Your task to perform on an android device: change alarm snooze length Image 0: 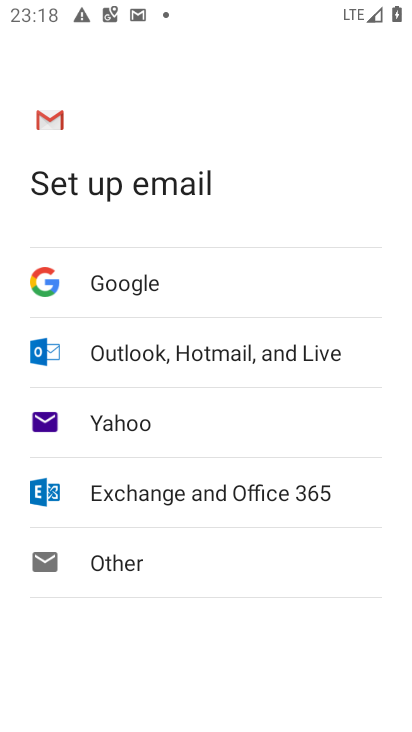
Step 0: press home button
Your task to perform on an android device: change alarm snooze length Image 1: 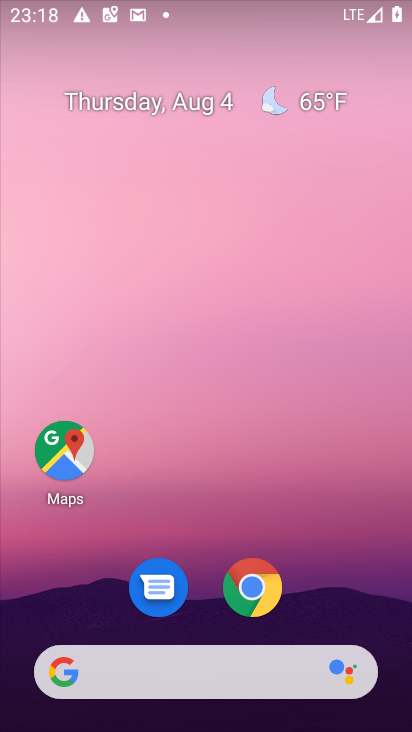
Step 1: drag from (246, 636) to (234, 220)
Your task to perform on an android device: change alarm snooze length Image 2: 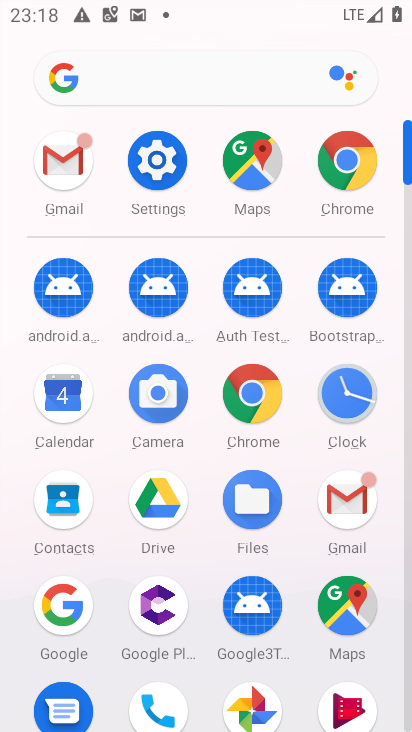
Step 2: click (344, 392)
Your task to perform on an android device: change alarm snooze length Image 3: 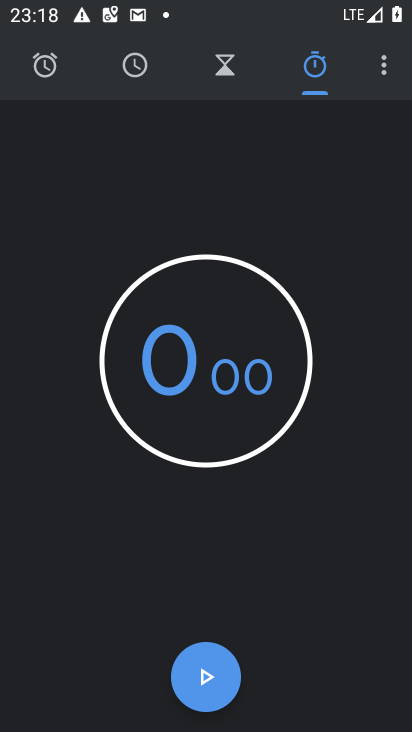
Step 3: click (387, 57)
Your task to perform on an android device: change alarm snooze length Image 4: 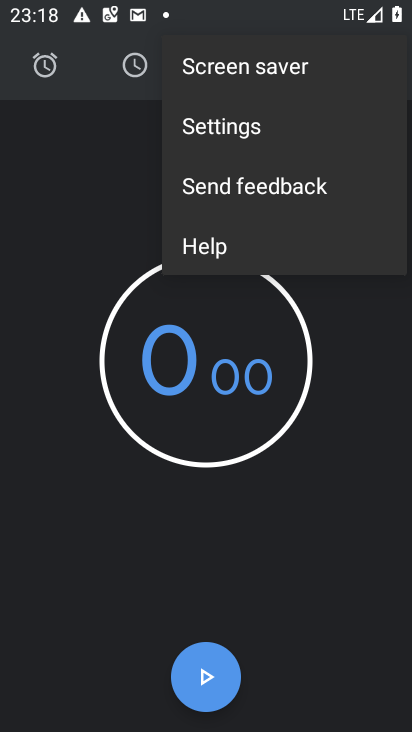
Step 4: click (261, 124)
Your task to perform on an android device: change alarm snooze length Image 5: 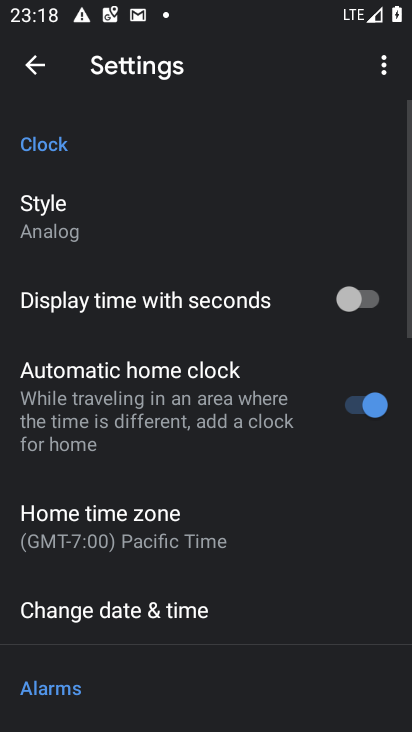
Step 5: drag from (151, 625) to (131, 222)
Your task to perform on an android device: change alarm snooze length Image 6: 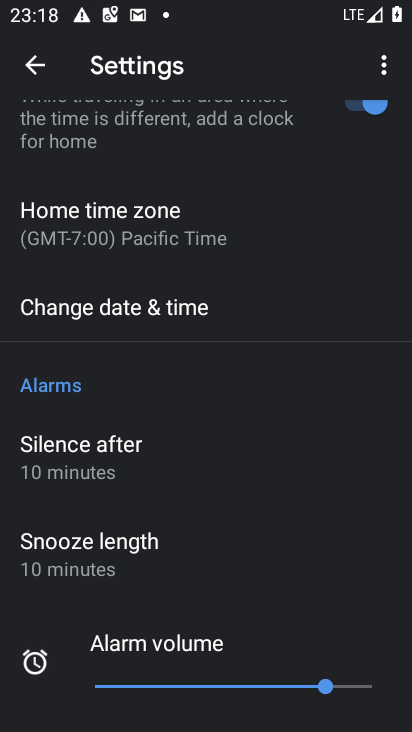
Step 6: click (124, 561)
Your task to perform on an android device: change alarm snooze length Image 7: 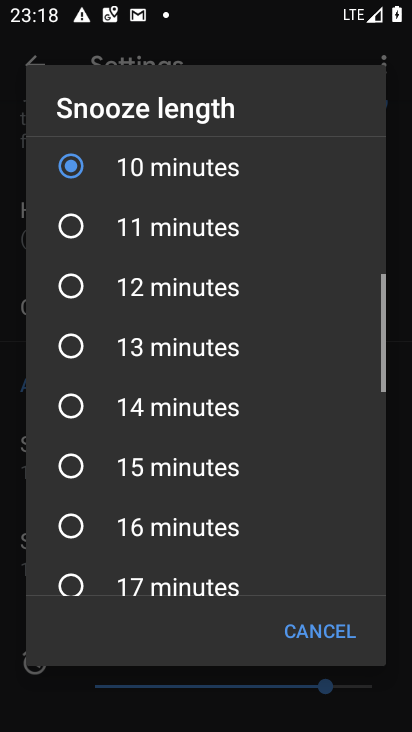
Step 7: click (130, 549)
Your task to perform on an android device: change alarm snooze length Image 8: 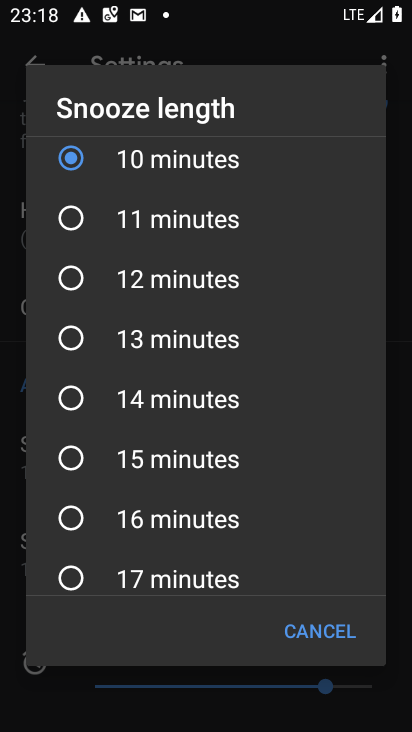
Step 8: click (134, 525)
Your task to perform on an android device: change alarm snooze length Image 9: 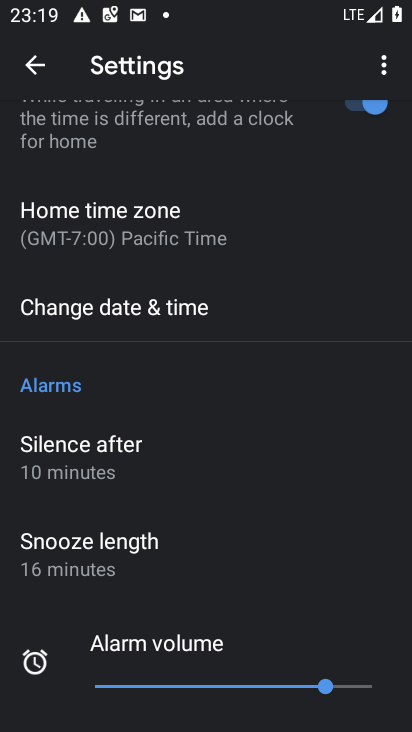
Step 9: task complete